Your task to perform on an android device: turn off sleep mode Image 0: 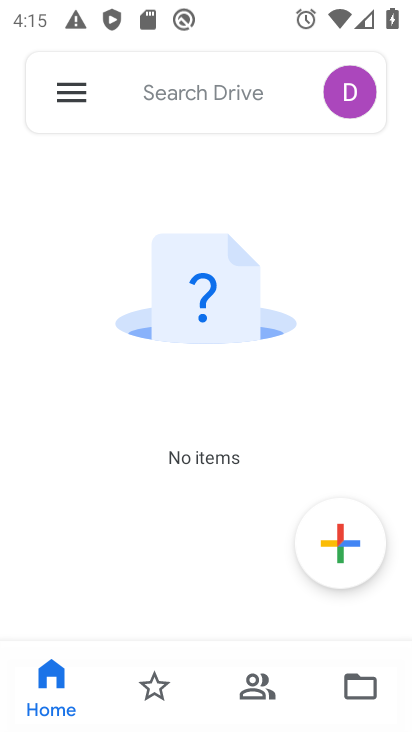
Step 0: press home button
Your task to perform on an android device: turn off sleep mode Image 1: 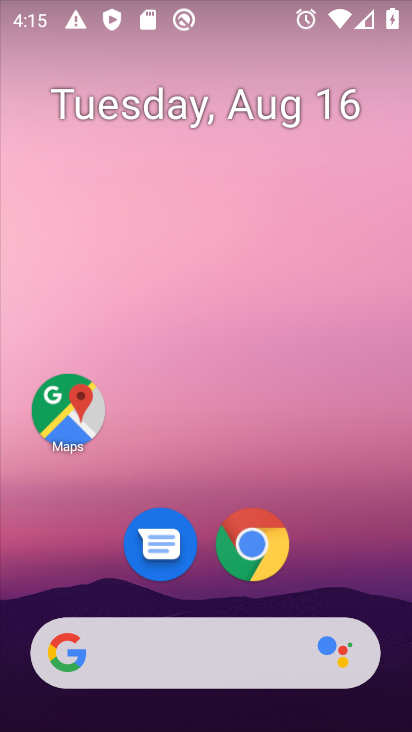
Step 1: drag from (206, 479) to (199, 99)
Your task to perform on an android device: turn off sleep mode Image 2: 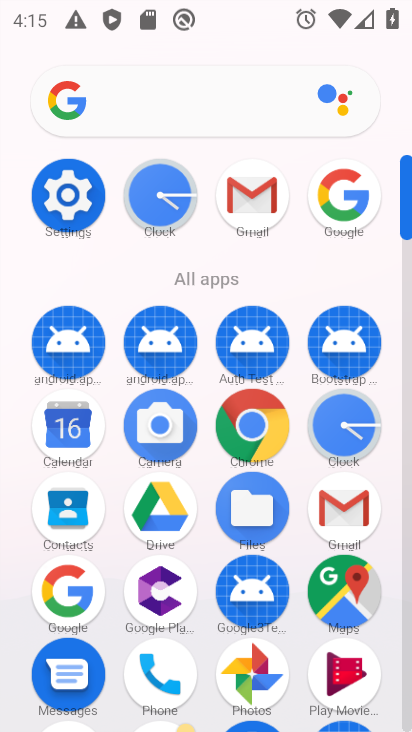
Step 2: click (55, 175)
Your task to perform on an android device: turn off sleep mode Image 3: 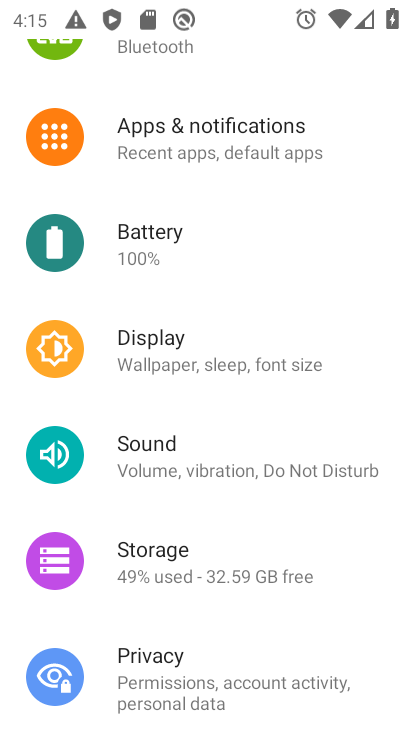
Step 3: click (208, 339)
Your task to perform on an android device: turn off sleep mode Image 4: 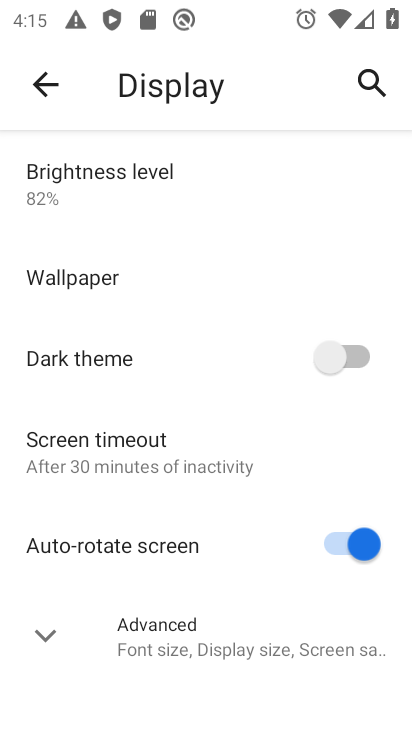
Step 4: click (179, 454)
Your task to perform on an android device: turn off sleep mode Image 5: 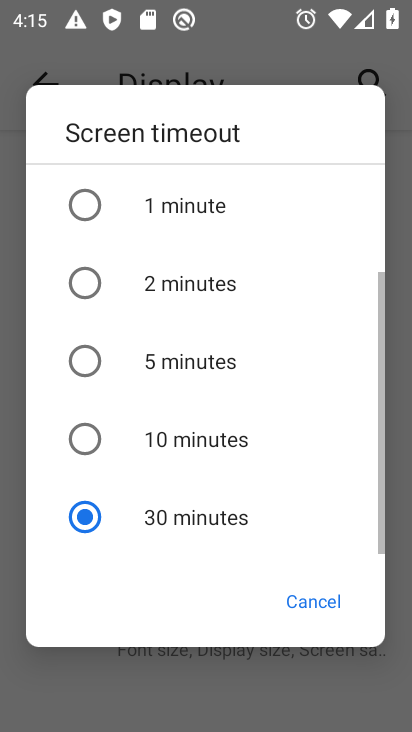
Step 5: click (178, 354)
Your task to perform on an android device: turn off sleep mode Image 6: 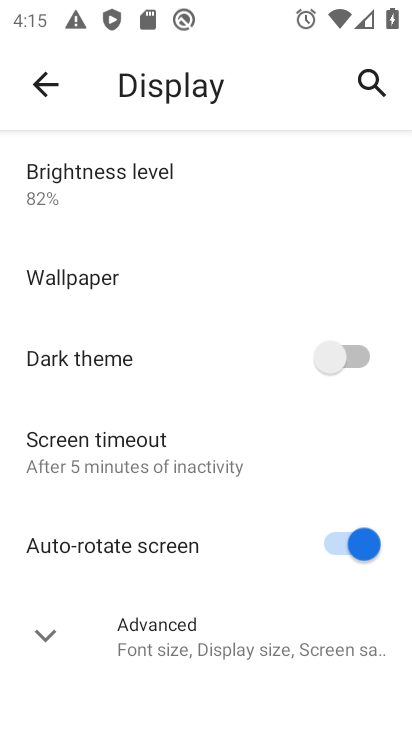
Step 6: task complete